Your task to perform on an android device: turn on priority inbox in the gmail app Image 0: 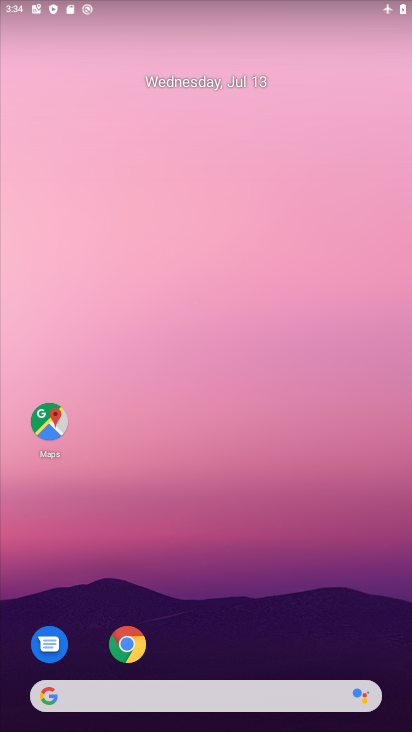
Step 0: drag from (312, 599) to (193, 0)
Your task to perform on an android device: turn on priority inbox in the gmail app Image 1: 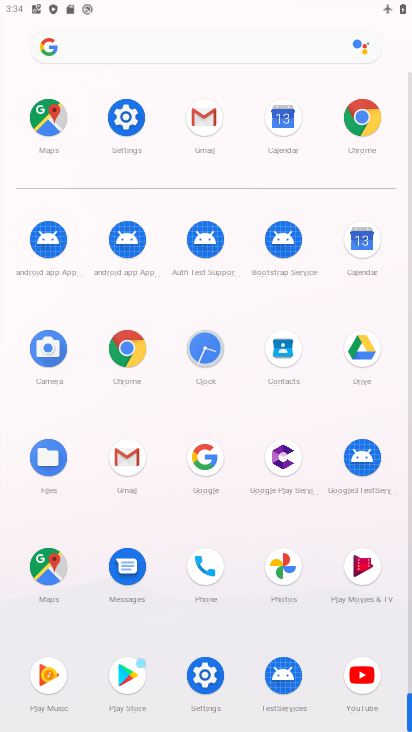
Step 1: click (213, 121)
Your task to perform on an android device: turn on priority inbox in the gmail app Image 2: 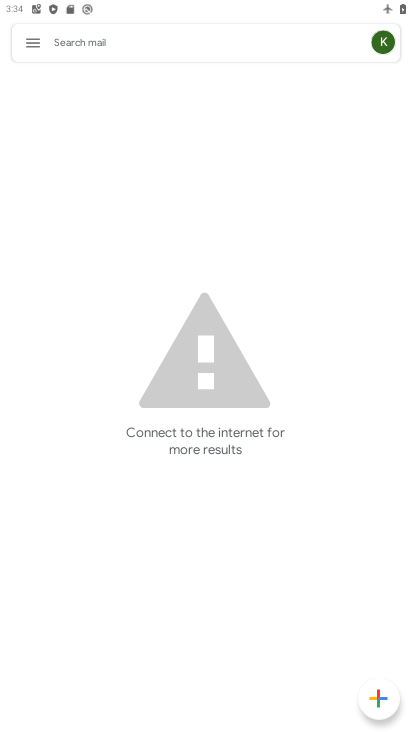
Step 2: click (29, 46)
Your task to perform on an android device: turn on priority inbox in the gmail app Image 3: 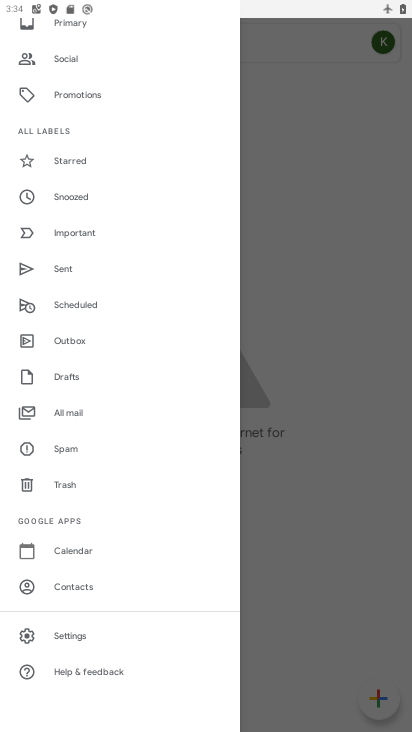
Step 3: click (69, 631)
Your task to perform on an android device: turn on priority inbox in the gmail app Image 4: 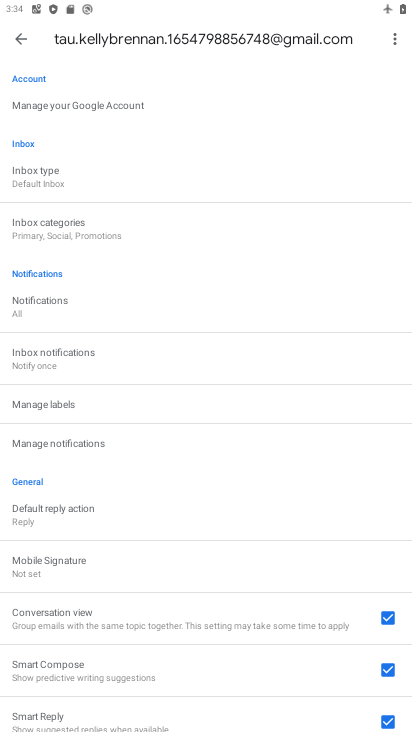
Step 4: click (43, 175)
Your task to perform on an android device: turn on priority inbox in the gmail app Image 5: 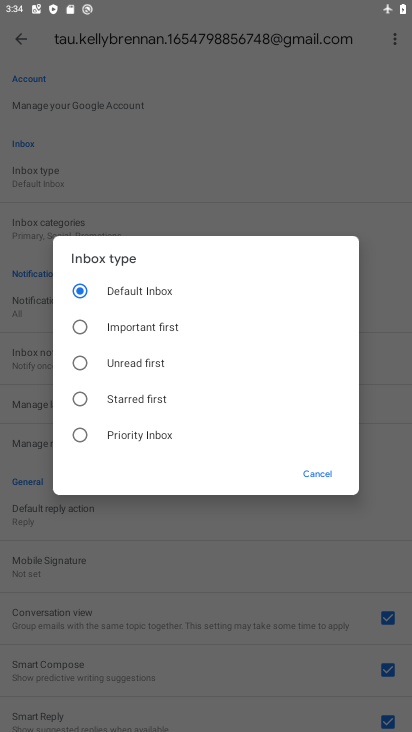
Step 5: task complete